Your task to perform on an android device: Search for the best books of all time on Goodreads Image 0: 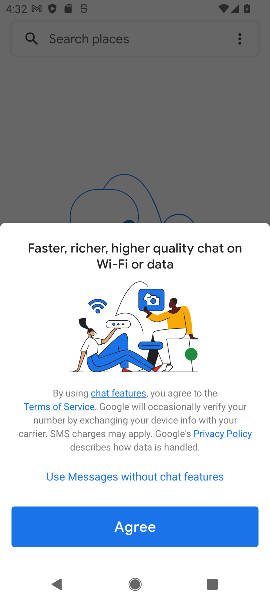
Step 0: press home button
Your task to perform on an android device: Search for the best books of all time on Goodreads Image 1: 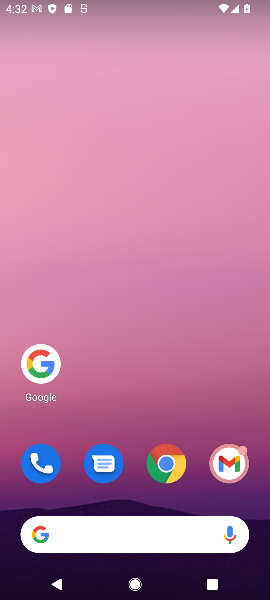
Step 1: click (29, 349)
Your task to perform on an android device: Search for the best books of all time on Goodreads Image 2: 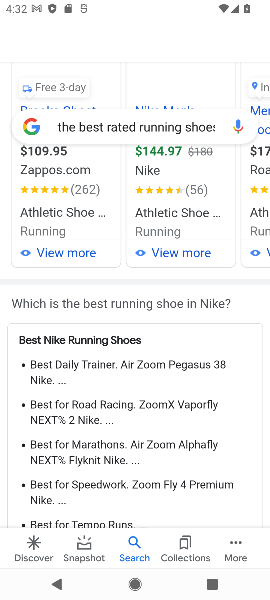
Step 2: click (153, 119)
Your task to perform on an android device: Search for the best books of all time on Goodreads Image 3: 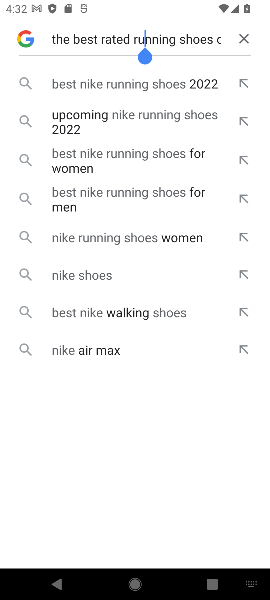
Step 3: click (246, 45)
Your task to perform on an android device: Search for the best books of all time on Goodreads Image 4: 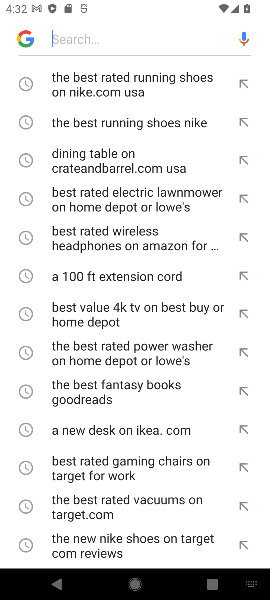
Step 4: click (157, 24)
Your task to perform on an android device: Search for the best books of all time on Goodreads Image 5: 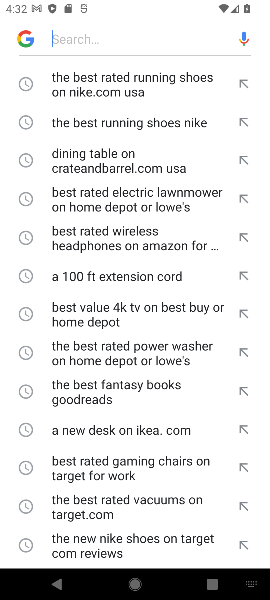
Step 5: type "the best books of all time on Goodreads"
Your task to perform on an android device: Search for the best books of all time on Goodreads Image 6: 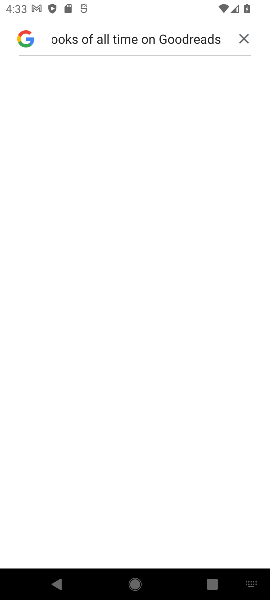
Step 6: click (131, 36)
Your task to perform on an android device: Search for the best books of all time on Goodreads Image 7: 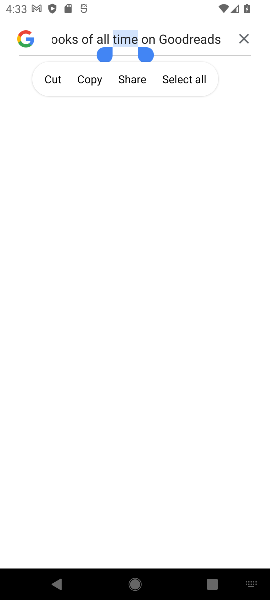
Step 7: click (148, 284)
Your task to perform on an android device: Search for the best books of all time on Goodreads Image 8: 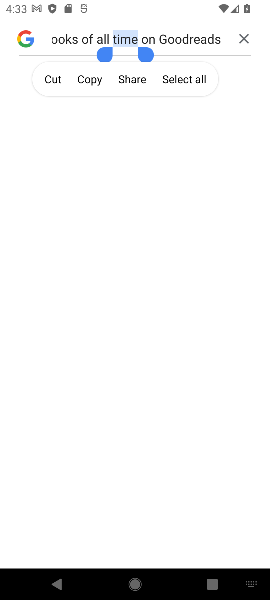
Step 8: click (194, 226)
Your task to perform on an android device: Search for the best books of all time on Goodreads Image 9: 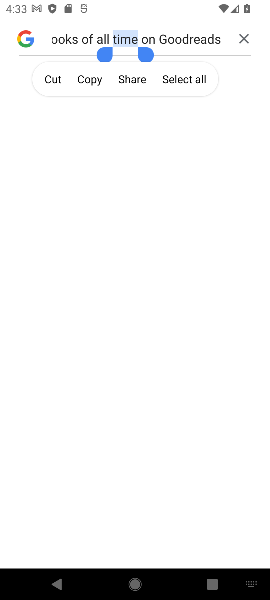
Step 9: click (205, 41)
Your task to perform on an android device: Search for the best books of all time on Goodreads Image 10: 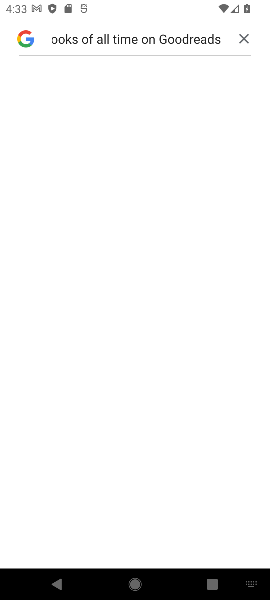
Step 10: press back button
Your task to perform on an android device: Search for the best books of all time on Goodreads Image 11: 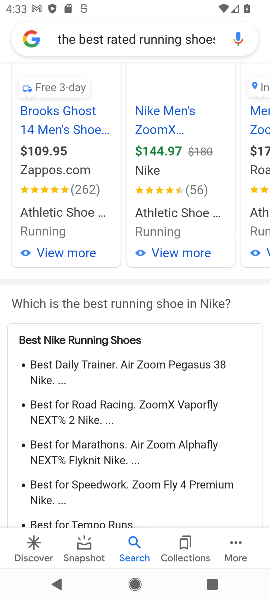
Step 11: click (202, 39)
Your task to perform on an android device: Search for the best books of all time on Goodreads Image 12: 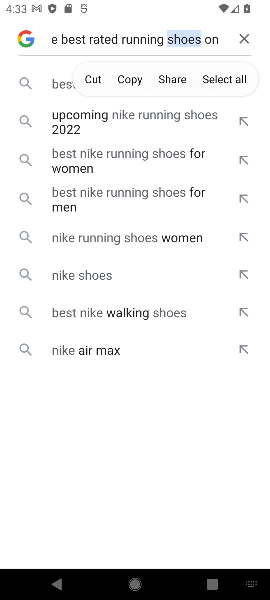
Step 12: click (248, 31)
Your task to perform on an android device: Search for the best books of all time on Goodreads Image 13: 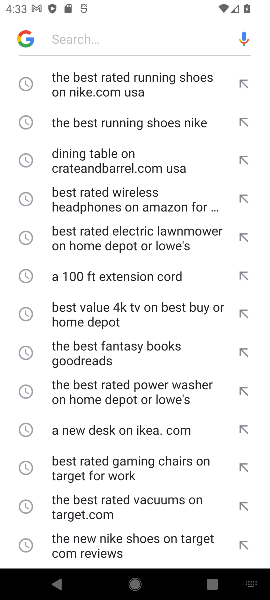
Step 13: click (151, 45)
Your task to perform on an android device: Search for the best books of all time on Goodreads Image 14: 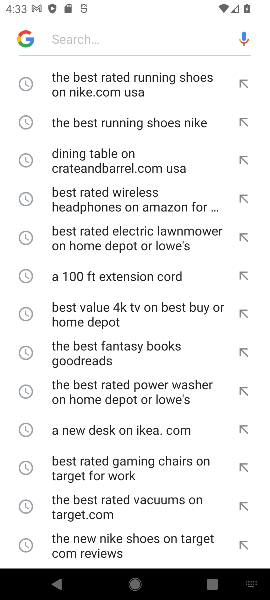
Step 14: type "the best books of all time on Goodreads "
Your task to perform on an android device: Search for the best books of all time on Goodreads Image 15: 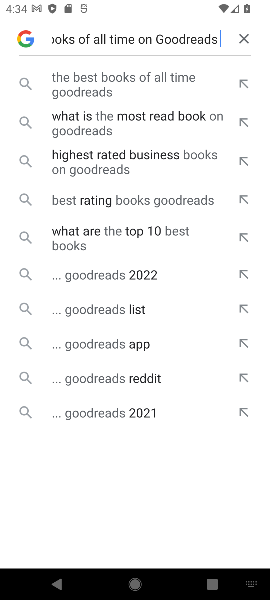
Step 15: click (100, 87)
Your task to perform on an android device: Search for the best books of all time on Goodreads Image 16: 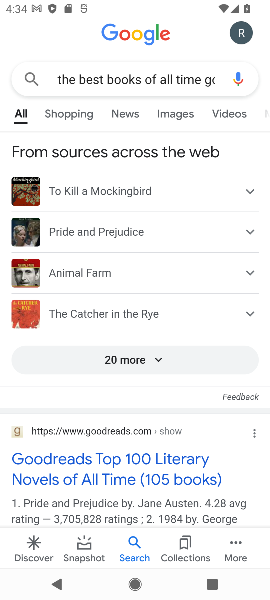
Step 16: task complete